Your task to perform on an android device: Show me recent news Image 0: 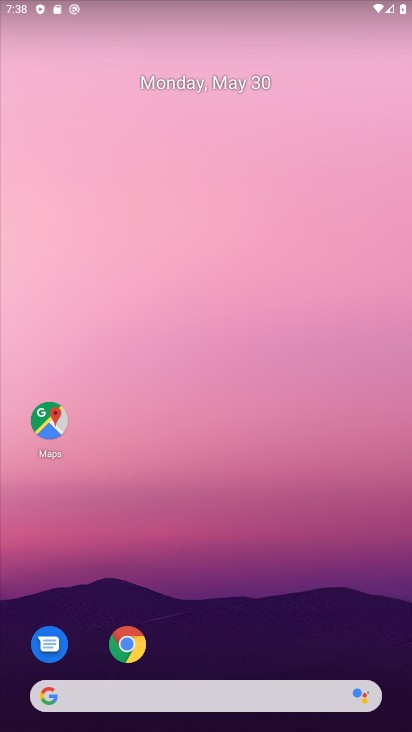
Step 0: drag from (268, 611) to (216, 82)
Your task to perform on an android device: Show me recent news Image 1: 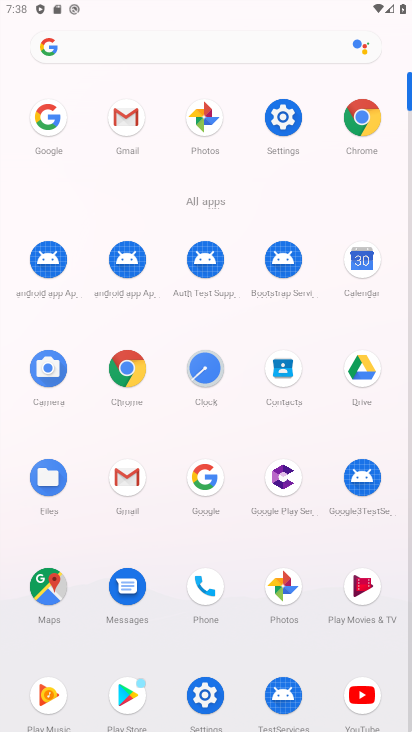
Step 1: click (44, 117)
Your task to perform on an android device: Show me recent news Image 2: 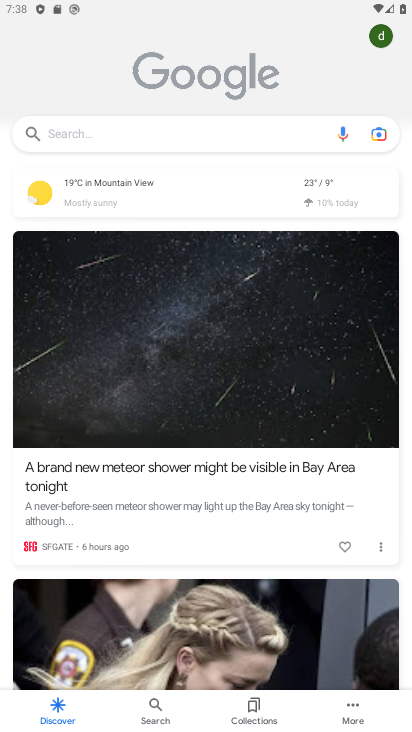
Step 2: click (141, 134)
Your task to perform on an android device: Show me recent news Image 3: 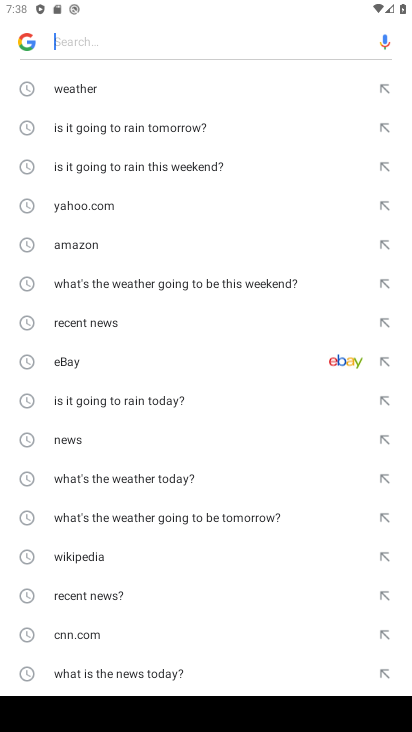
Step 3: type "recent news"
Your task to perform on an android device: Show me recent news Image 4: 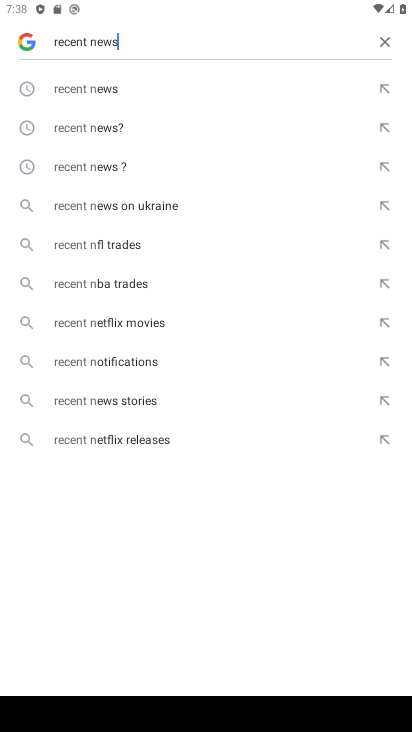
Step 4: type ""
Your task to perform on an android device: Show me recent news Image 5: 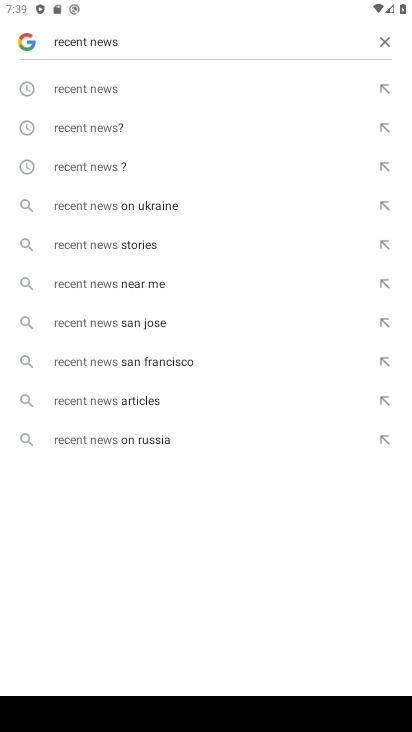
Step 5: click (98, 90)
Your task to perform on an android device: Show me recent news Image 6: 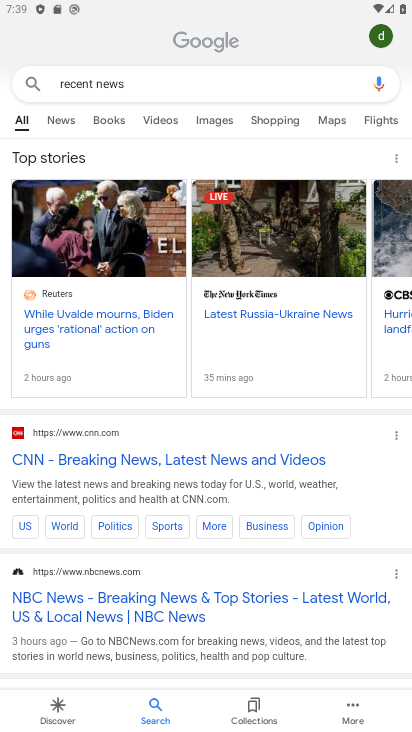
Step 6: click (74, 329)
Your task to perform on an android device: Show me recent news Image 7: 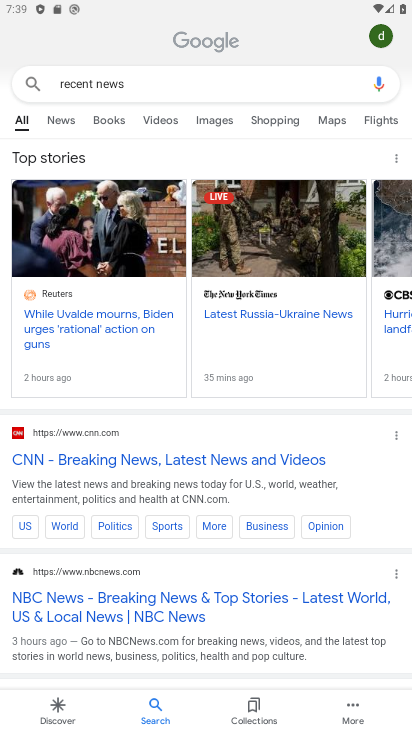
Step 7: click (92, 321)
Your task to perform on an android device: Show me recent news Image 8: 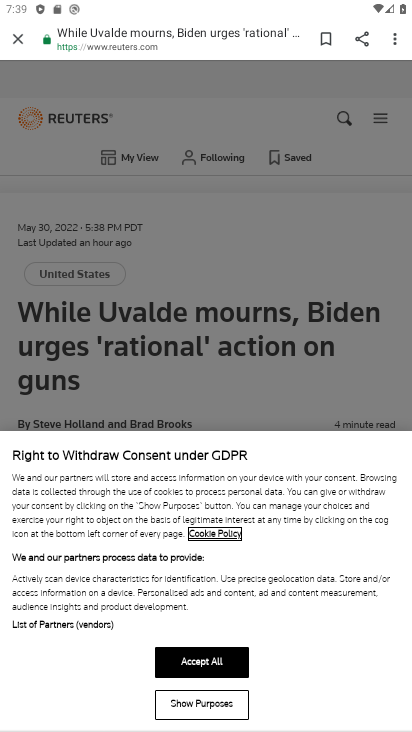
Step 8: click (228, 663)
Your task to perform on an android device: Show me recent news Image 9: 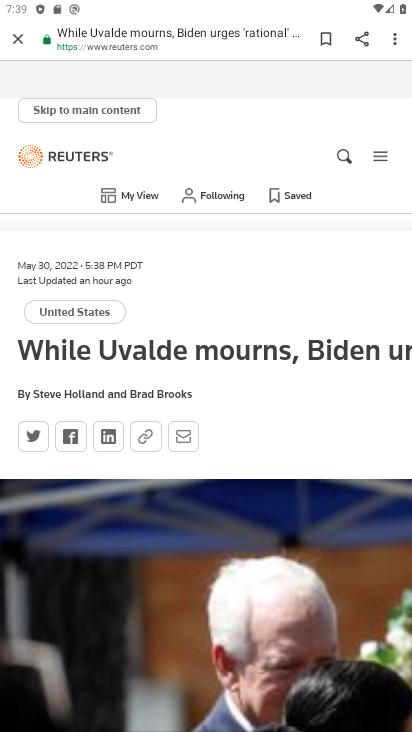
Step 9: task complete